Your task to perform on an android device: Go to network settings Image 0: 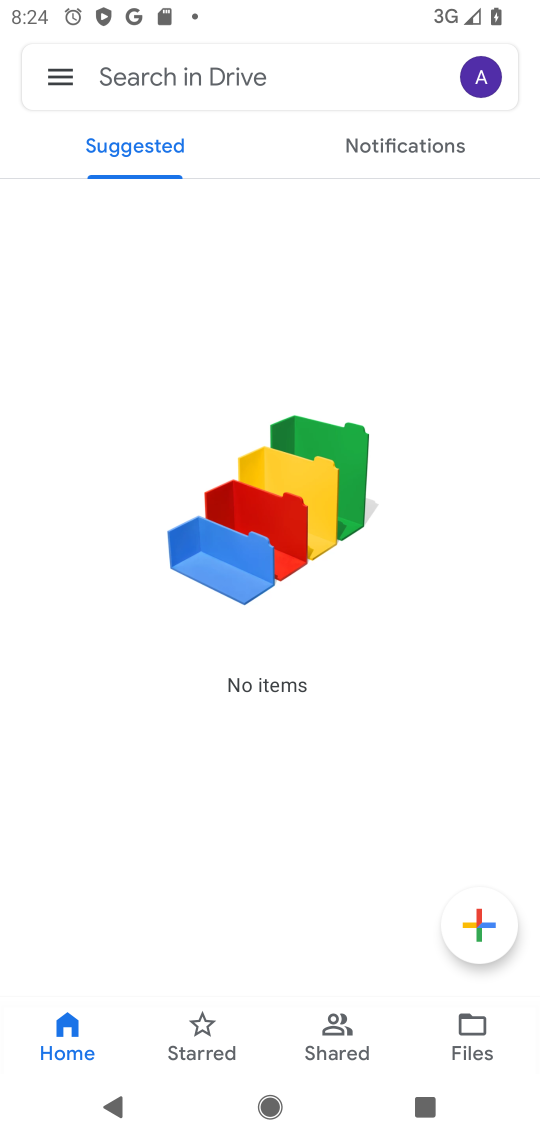
Step 0: press home button
Your task to perform on an android device: Go to network settings Image 1: 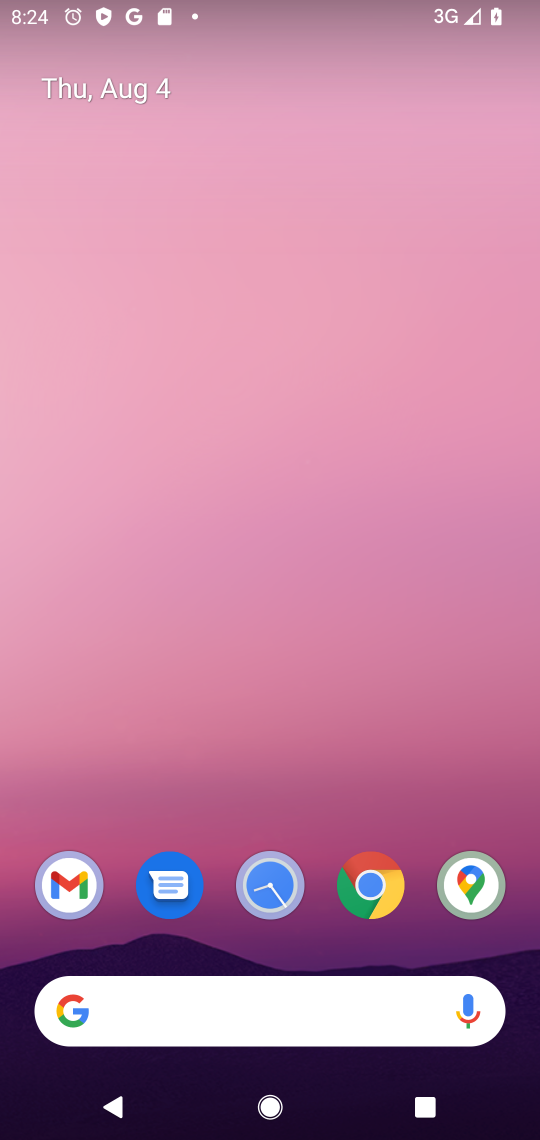
Step 1: drag from (335, 842) to (383, 1)
Your task to perform on an android device: Go to network settings Image 2: 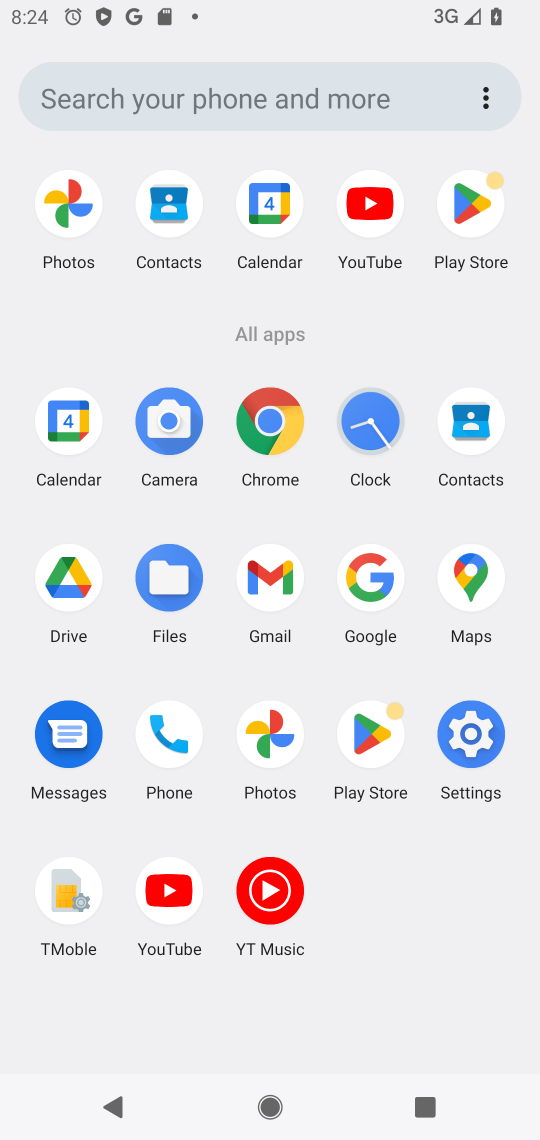
Step 2: click (459, 730)
Your task to perform on an android device: Go to network settings Image 3: 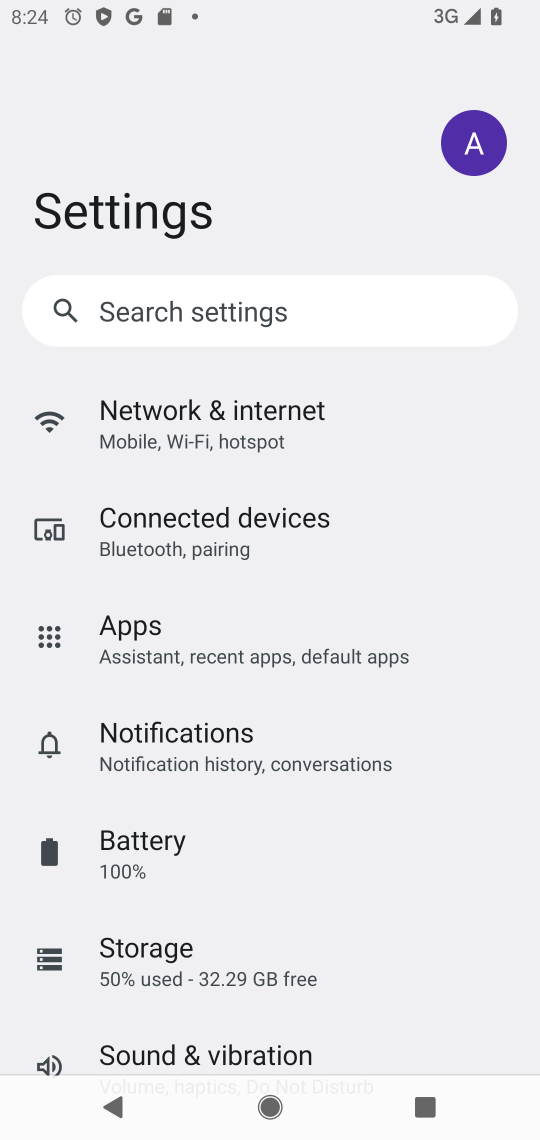
Step 3: click (228, 419)
Your task to perform on an android device: Go to network settings Image 4: 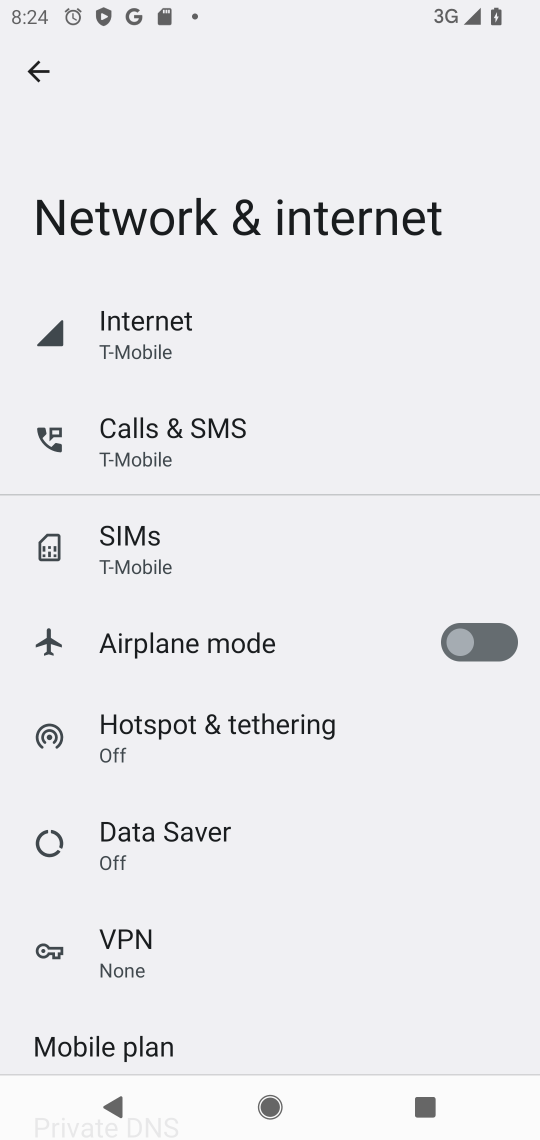
Step 4: task complete